Your task to perform on an android device: install app "VLC for Android" Image 0: 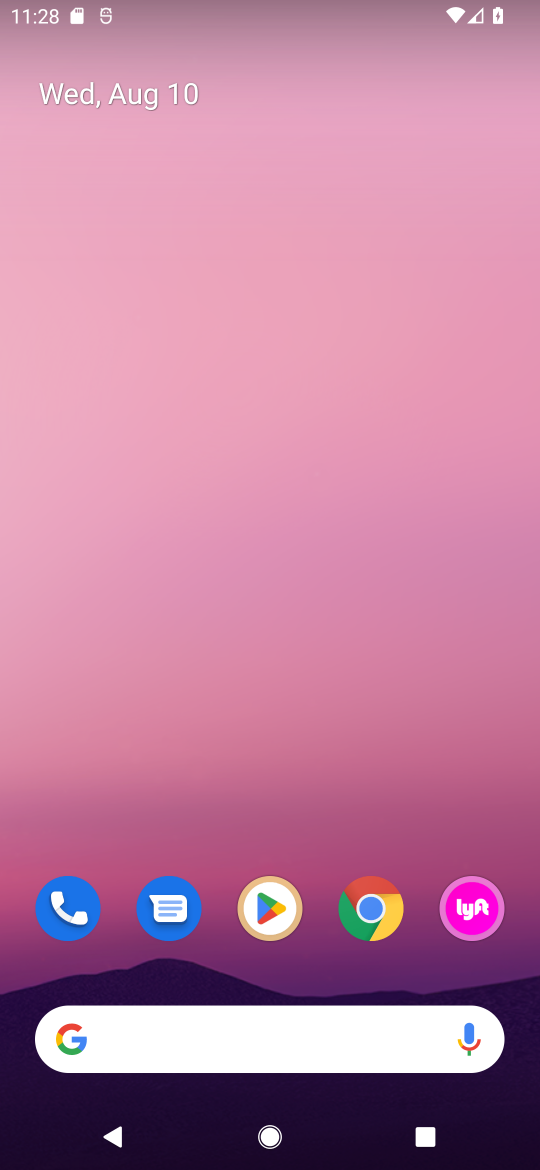
Step 0: click (273, 912)
Your task to perform on an android device: install app "VLC for Android" Image 1: 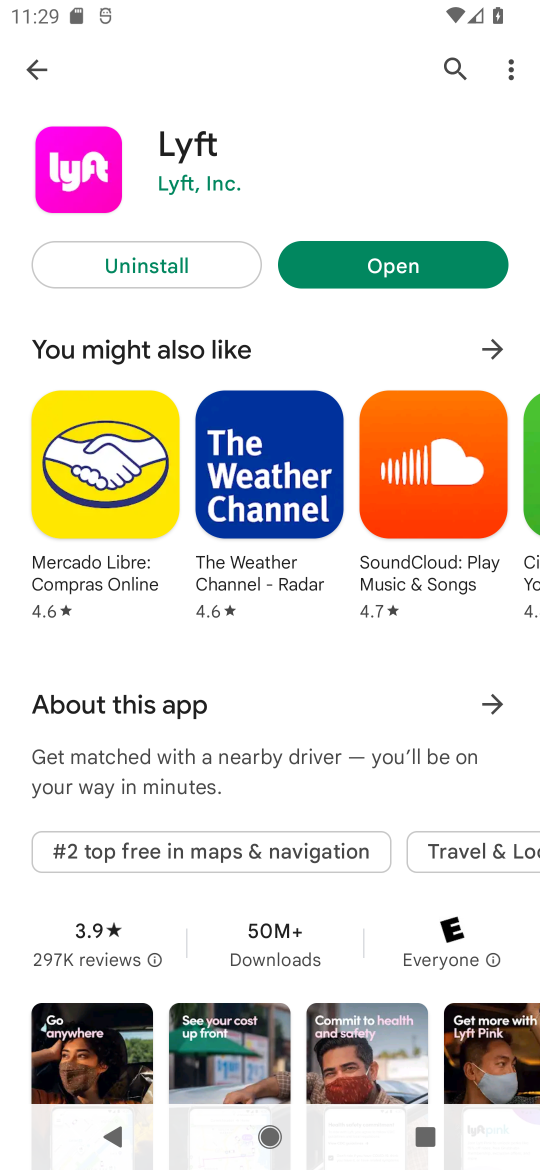
Step 1: click (459, 67)
Your task to perform on an android device: install app "VLC for Android" Image 2: 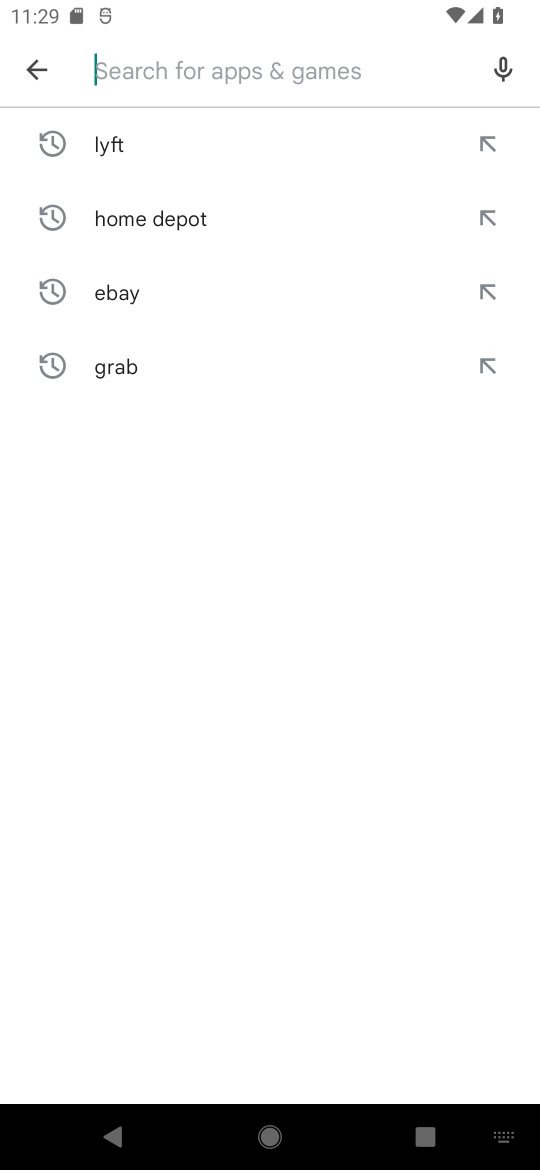
Step 2: type "vlc"
Your task to perform on an android device: install app "VLC for Android" Image 3: 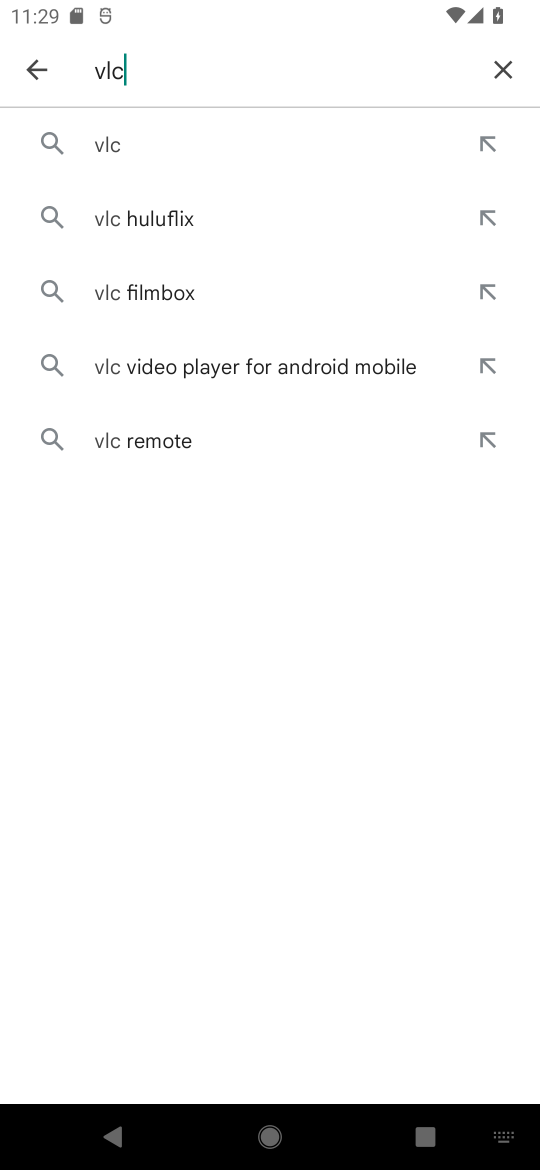
Step 3: click (183, 131)
Your task to perform on an android device: install app "VLC for Android" Image 4: 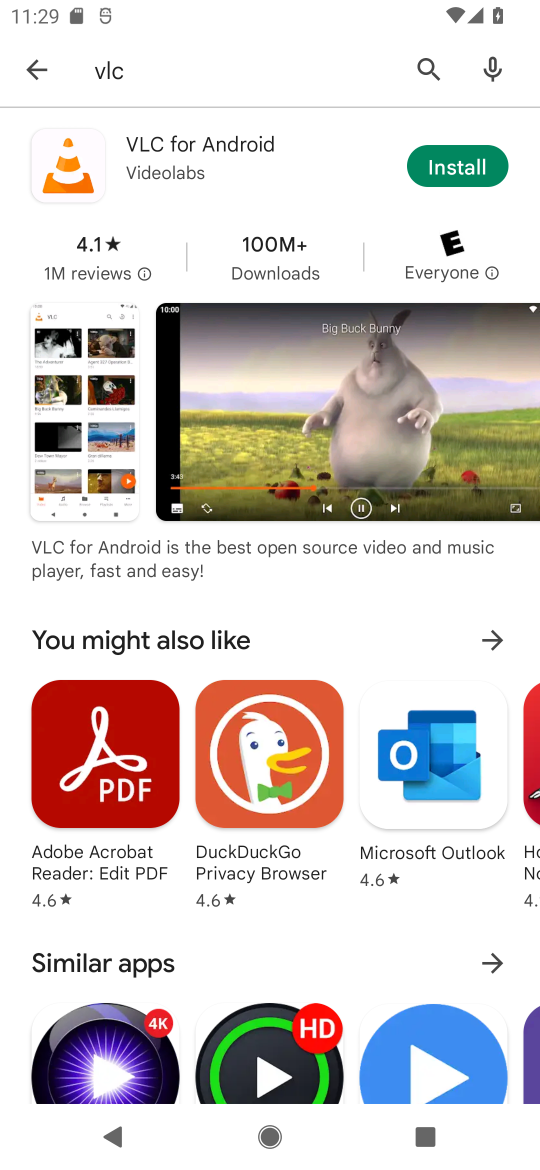
Step 4: click (436, 159)
Your task to perform on an android device: install app "VLC for Android" Image 5: 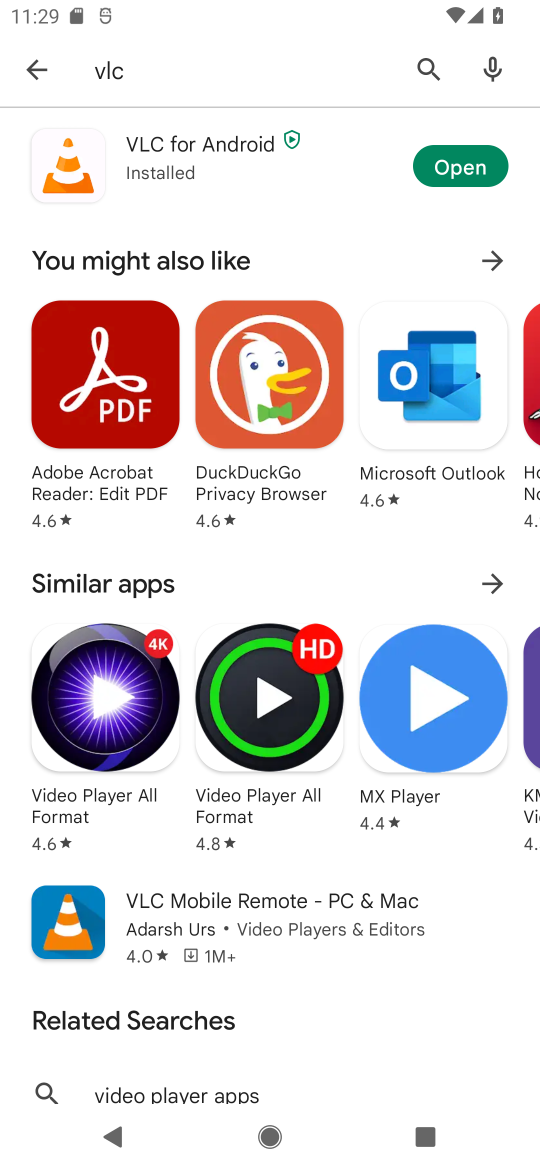
Step 5: task complete